Your task to perform on an android device: Open Chrome and go to the settings page Image 0: 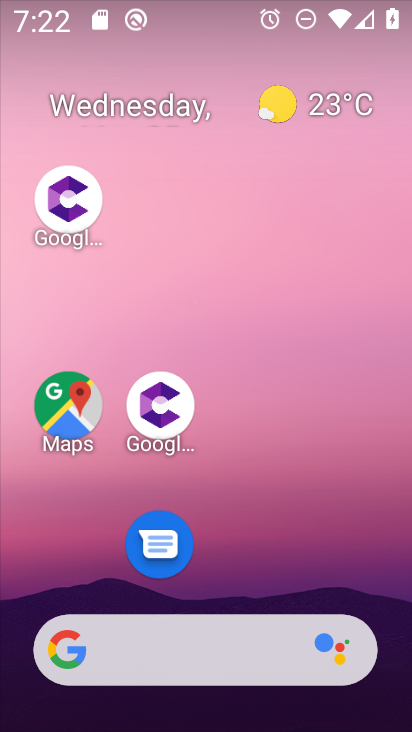
Step 0: drag from (291, 501) to (187, 118)
Your task to perform on an android device: Open Chrome and go to the settings page Image 1: 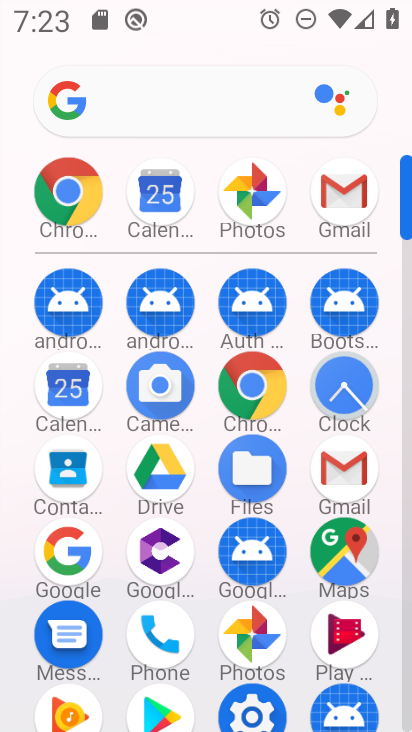
Step 1: click (70, 192)
Your task to perform on an android device: Open Chrome and go to the settings page Image 2: 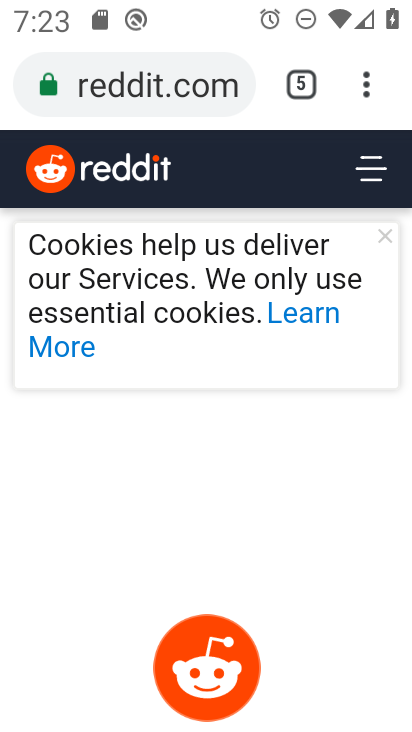
Step 2: click (364, 84)
Your task to perform on an android device: Open Chrome and go to the settings page Image 3: 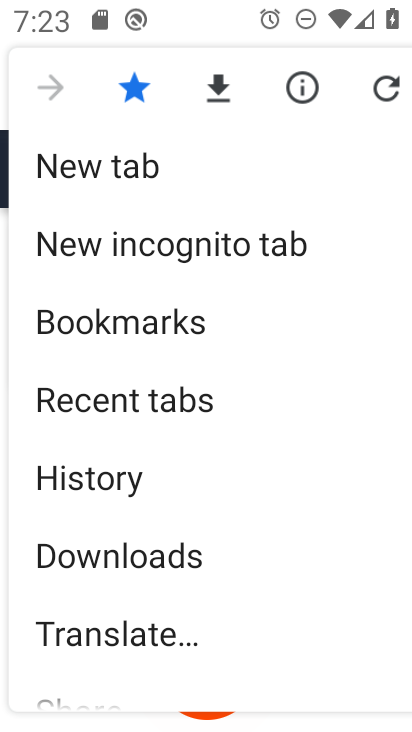
Step 3: drag from (244, 560) to (144, 112)
Your task to perform on an android device: Open Chrome and go to the settings page Image 4: 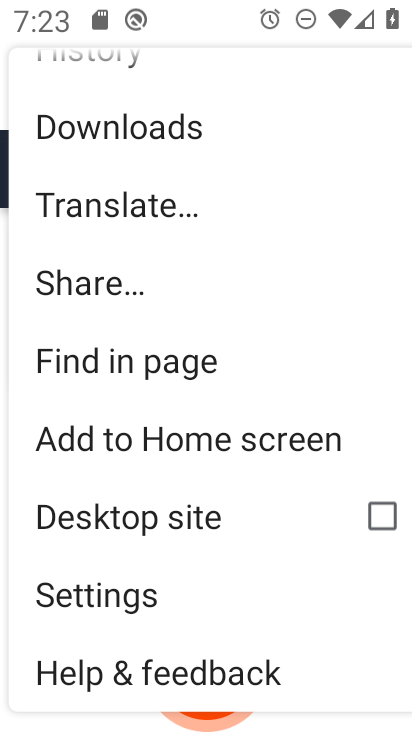
Step 4: click (99, 589)
Your task to perform on an android device: Open Chrome and go to the settings page Image 5: 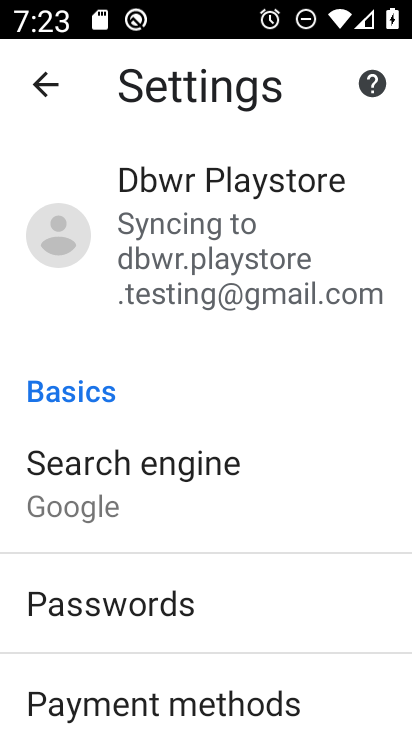
Step 5: task complete